Your task to perform on an android device: toggle wifi Image 0: 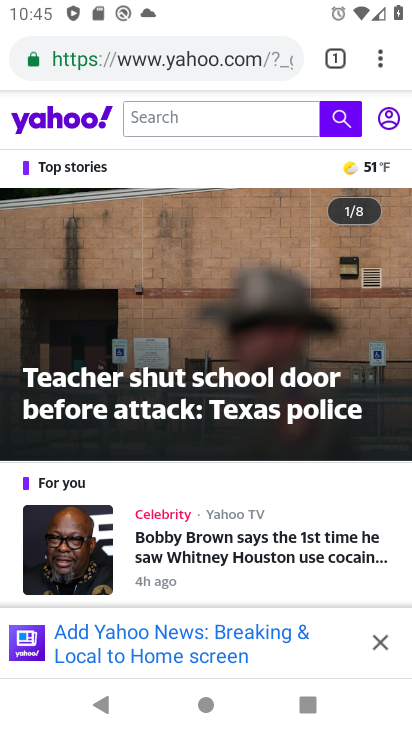
Step 0: press home button
Your task to perform on an android device: toggle wifi Image 1: 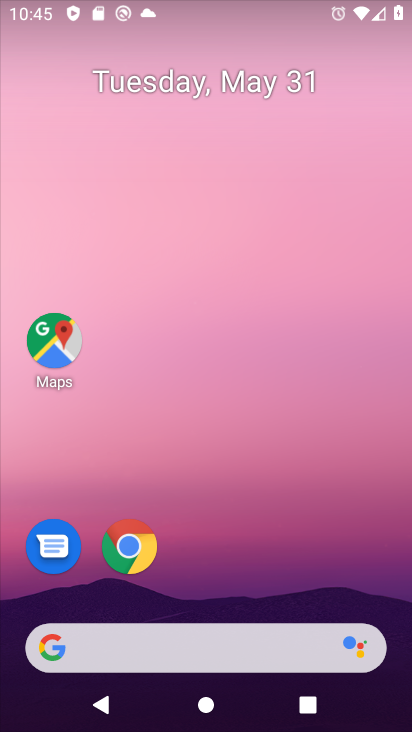
Step 1: drag from (242, 21) to (130, 723)
Your task to perform on an android device: toggle wifi Image 2: 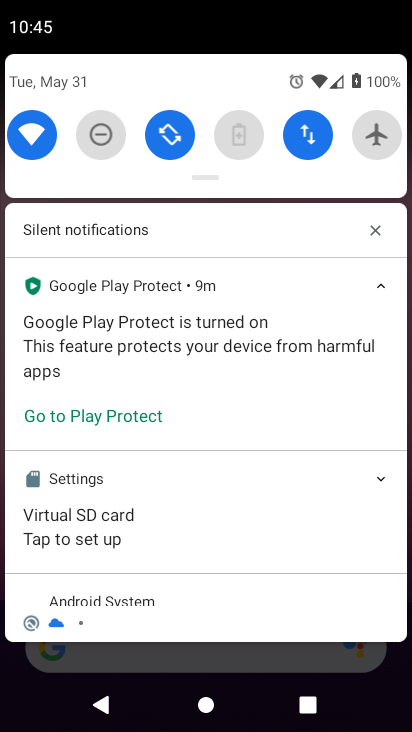
Step 2: click (31, 140)
Your task to perform on an android device: toggle wifi Image 3: 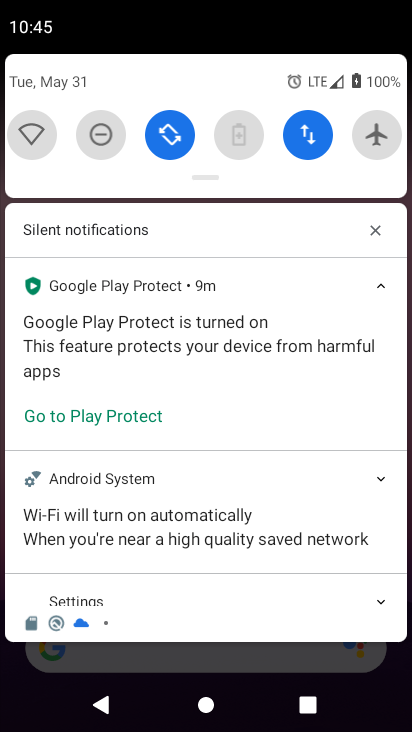
Step 3: task complete